Your task to perform on an android device: open chrome privacy settings Image 0: 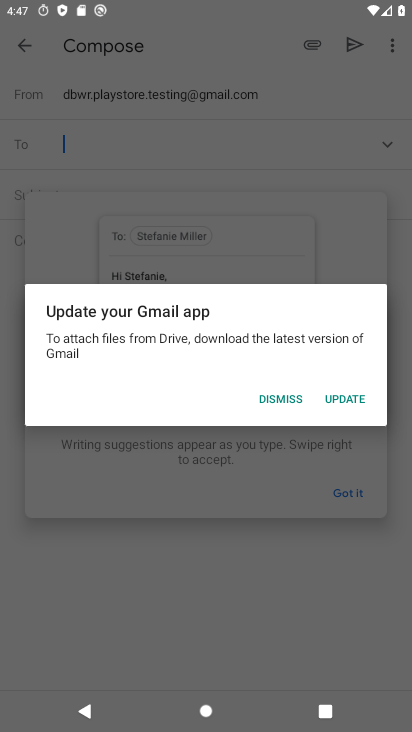
Step 0: press home button
Your task to perform on an android device: open chrome privacy settings Image 1: 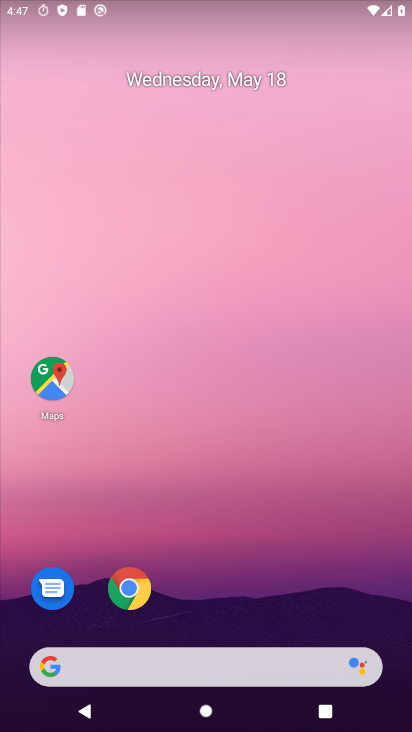
Step 1: click (134, 592)
Your task to perform on an android device: open chrome privacy settings Image 2: 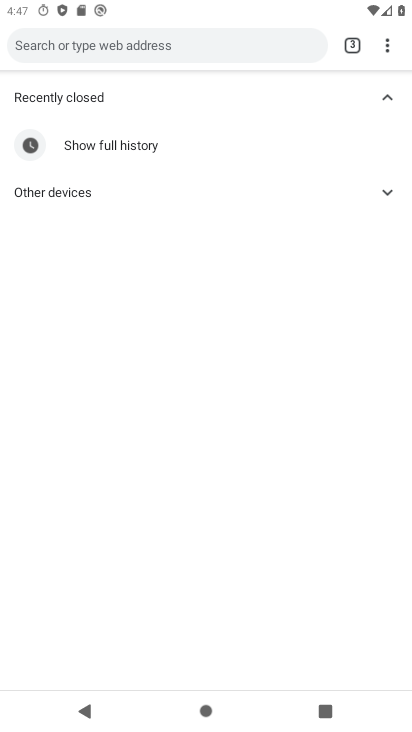
Step 2: drag from (388, 51) to (231, 386)
Your task to perform on an android device: open chrome privacy settings Image 3: 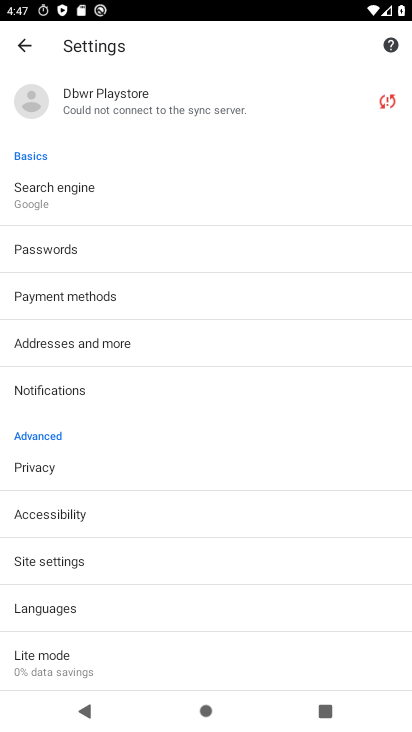
Step 3: click (30, 463)
Your task to perform on an android device: open chrome privacy settings Image 4: 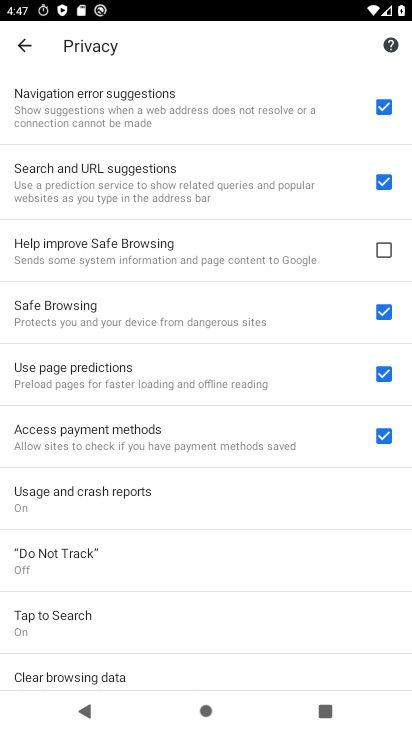
Step 4: task complete